Your task to perform on an android device: toggle priority inbox in the gmail app Image 0: 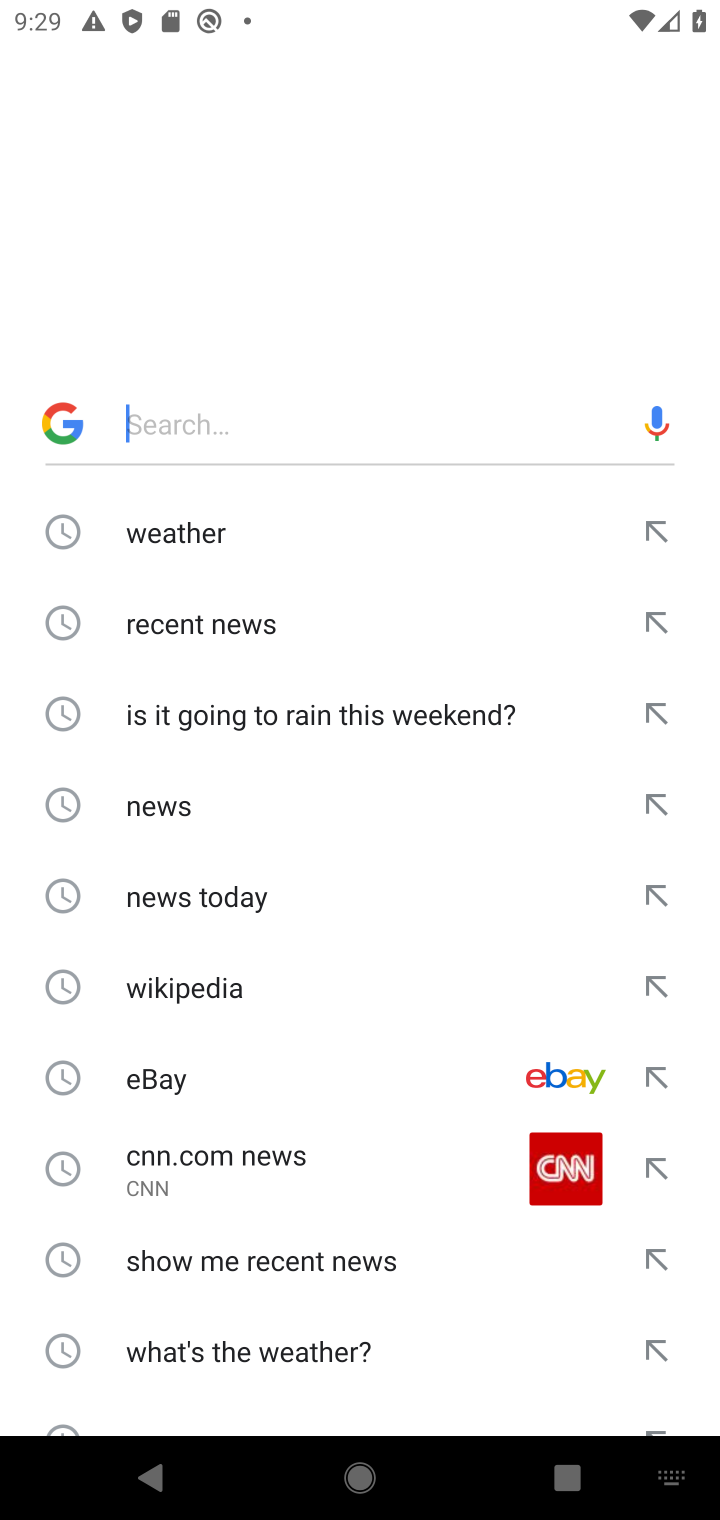
Step 0: press home button
Your task to perform on an android device: toggle priority inbox in the gmail app Image 1: 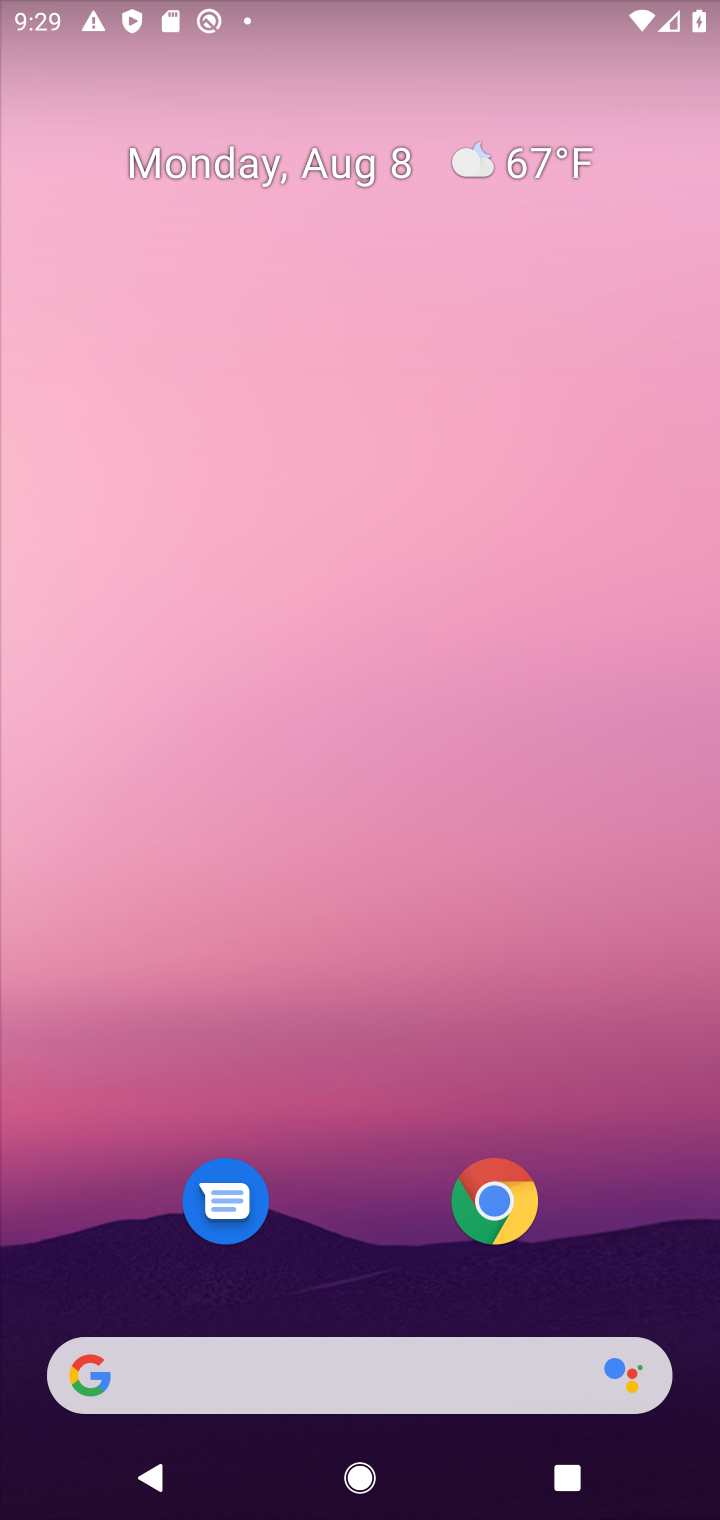
Step 1: drag from (350, 1261) to (403, 396)
Your task to perform on an android device: toggle priority inbox in the gmail app Image 2: 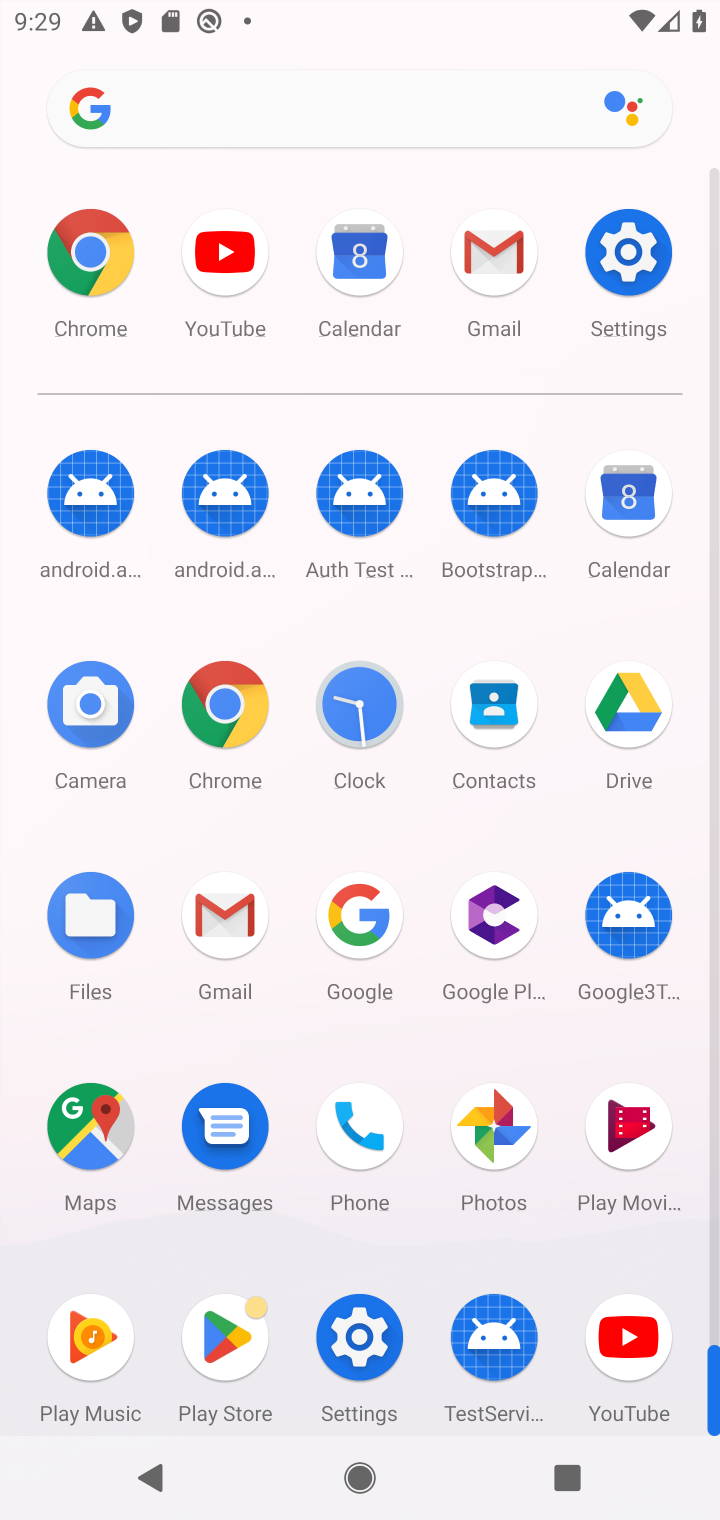
Step 2: click (223, 911)
Your task to perform on an android device: toggle priority inbox in the gmail app Image 3: 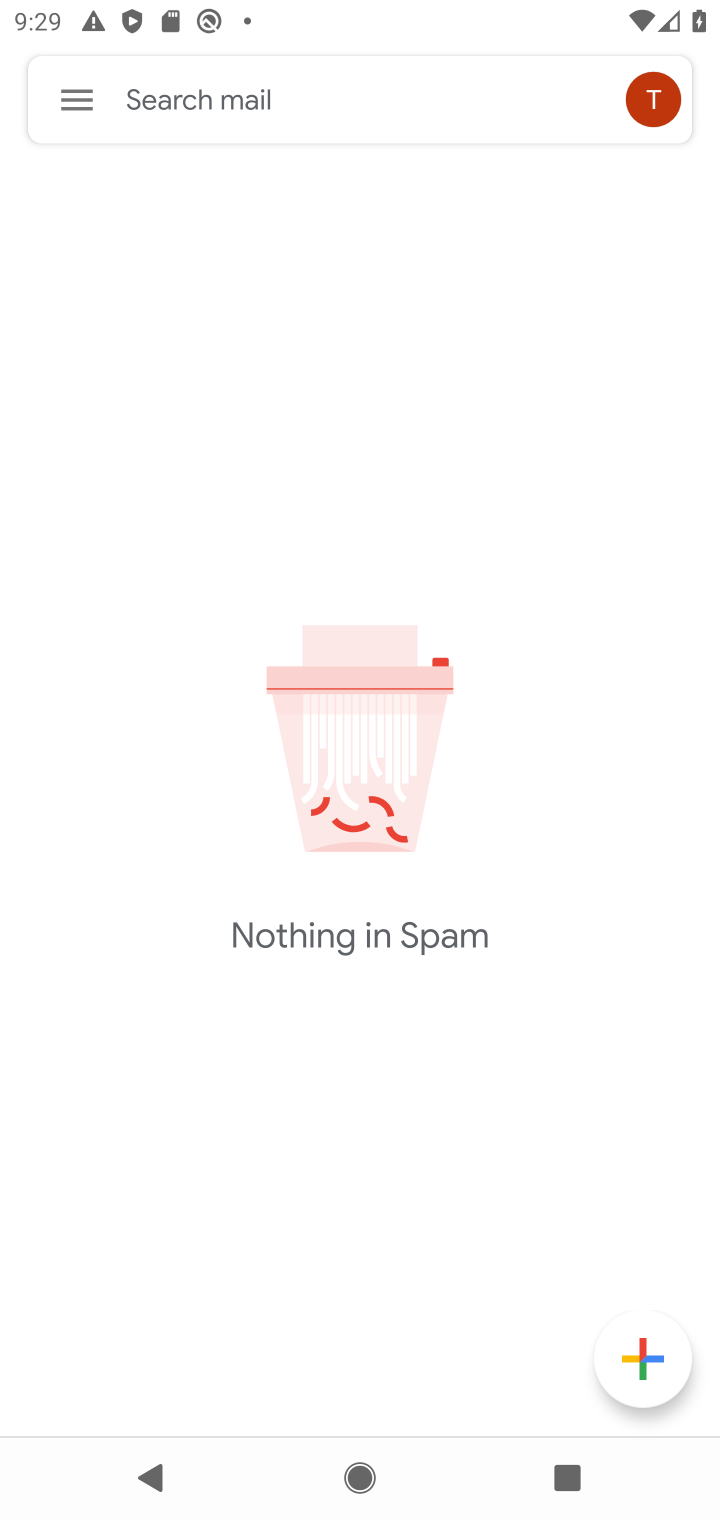
Step 3: click (80, 95)
Your task to perform on an android device: toggle priority inbox in the gmail app Image 4: 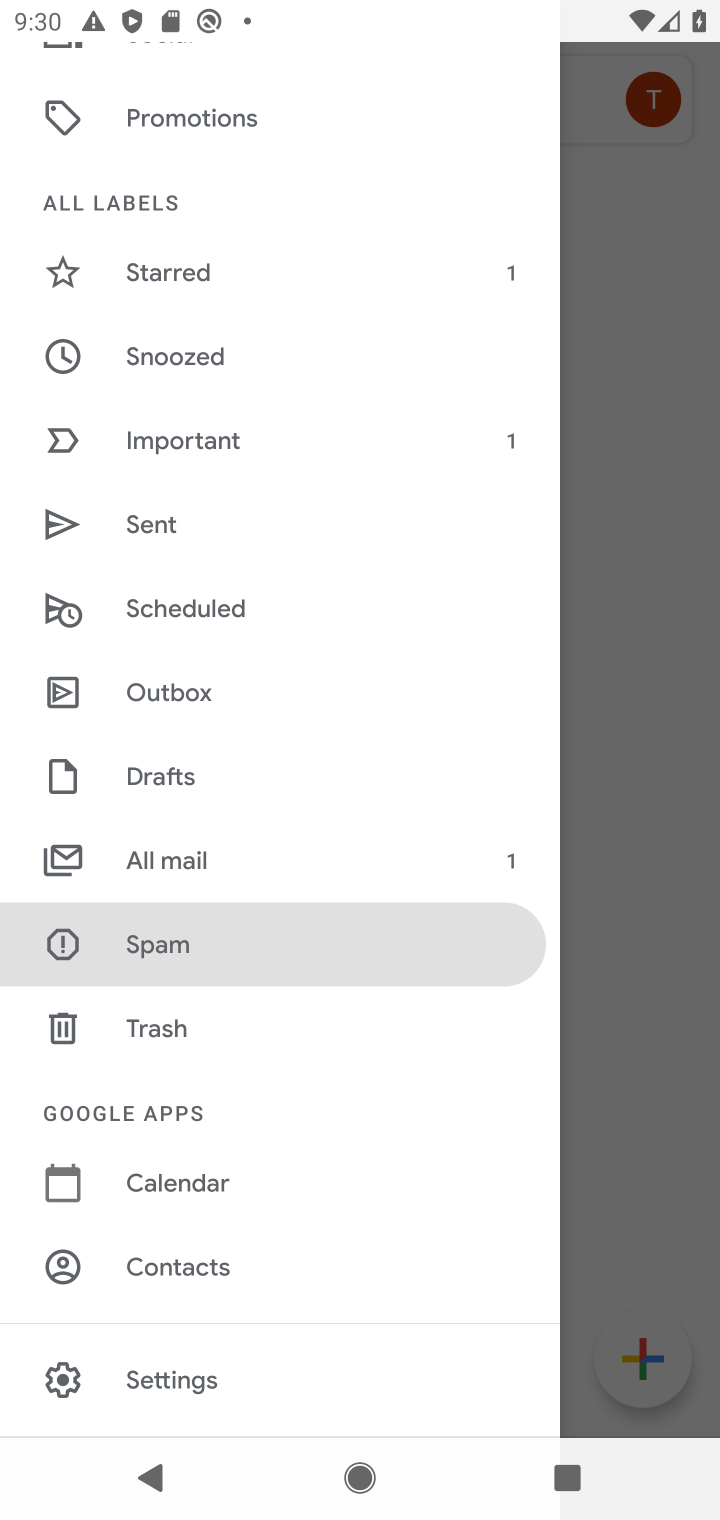
Step 4: drag from (386, 1009) to (353, 781)
Your task to perform on an android device: toggle priority inbox in the gmail app Image 5: 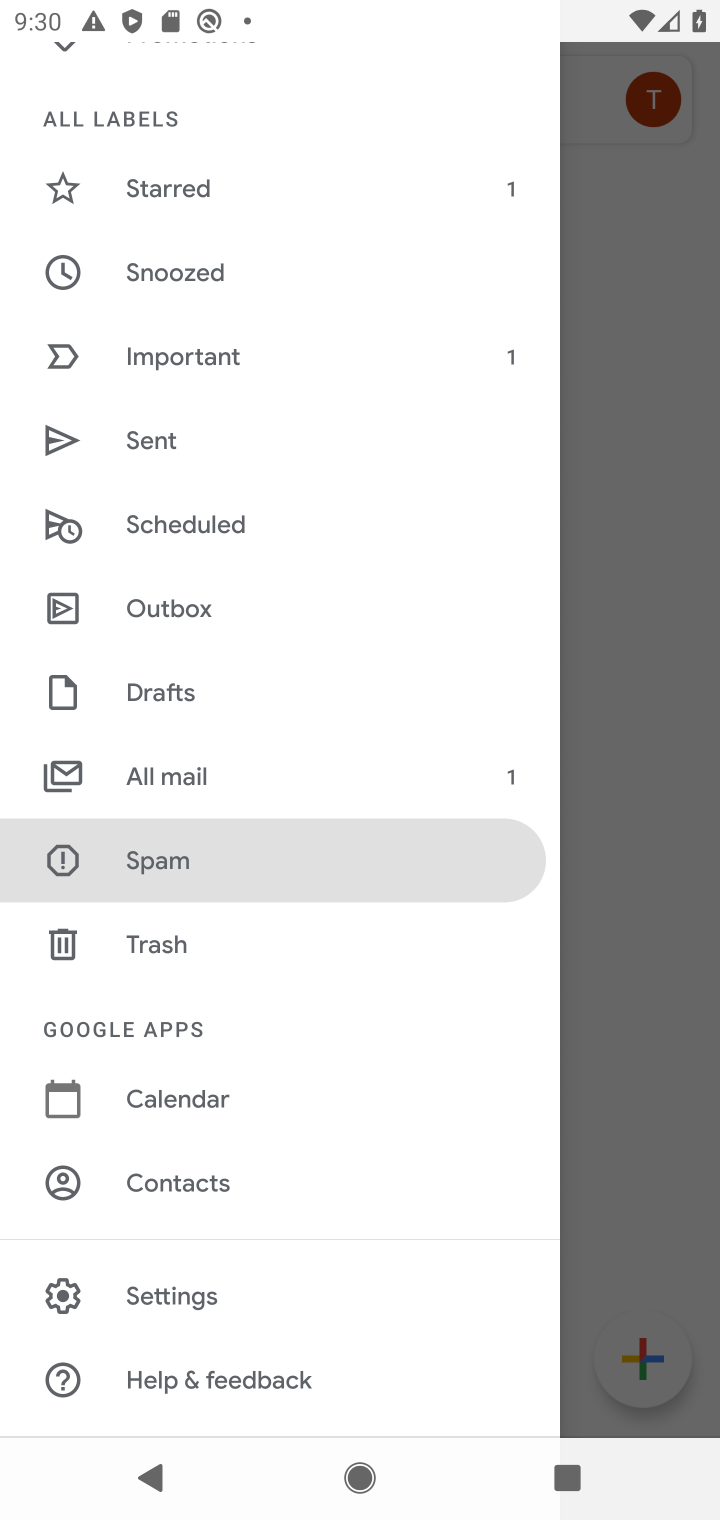
Step 5: click (233, 1300)
Your task to perform on an android device: toggle priority inbox in the gmail app Image 6: 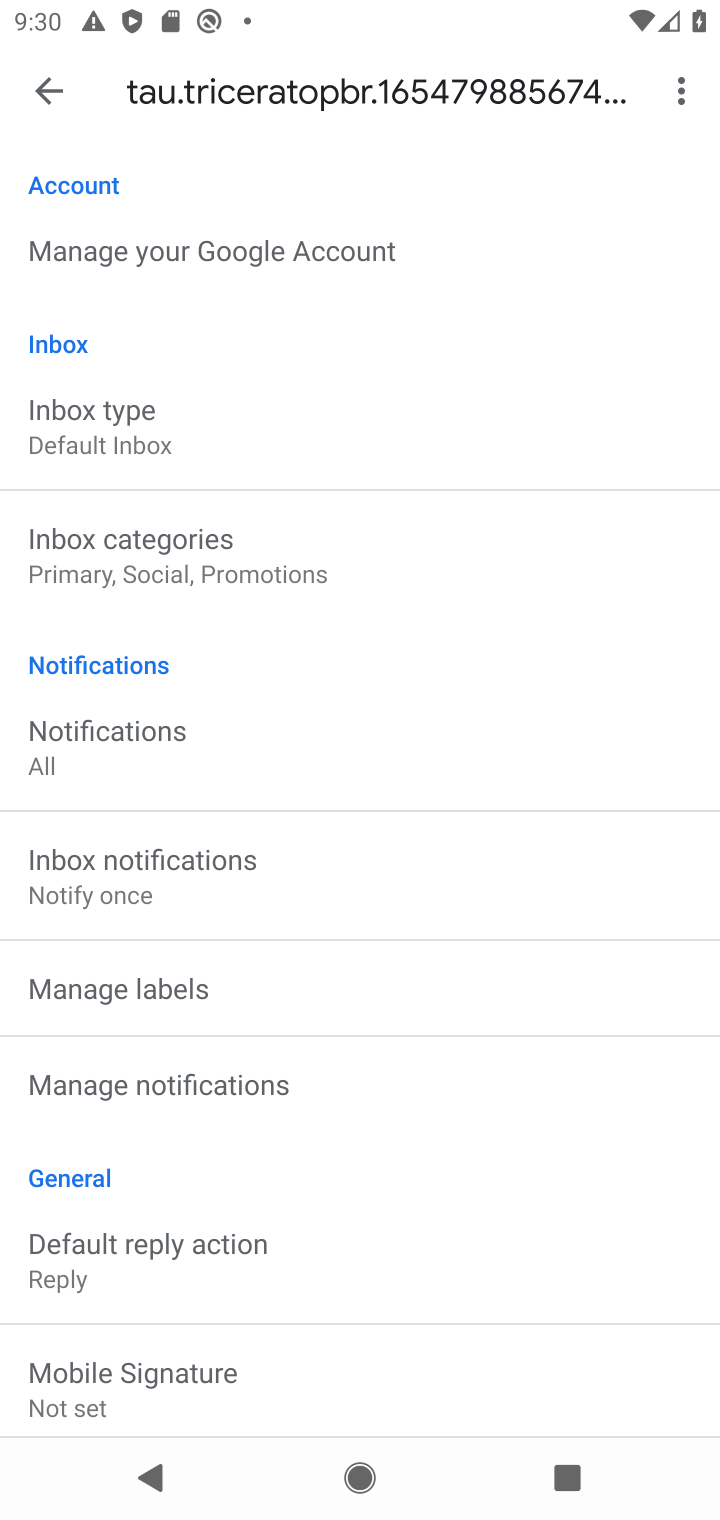
Step 6: drag from (523, 521) to (523, 978)
Your task to perform on an android device: toggle priority inbox in the gmail app Image 7: 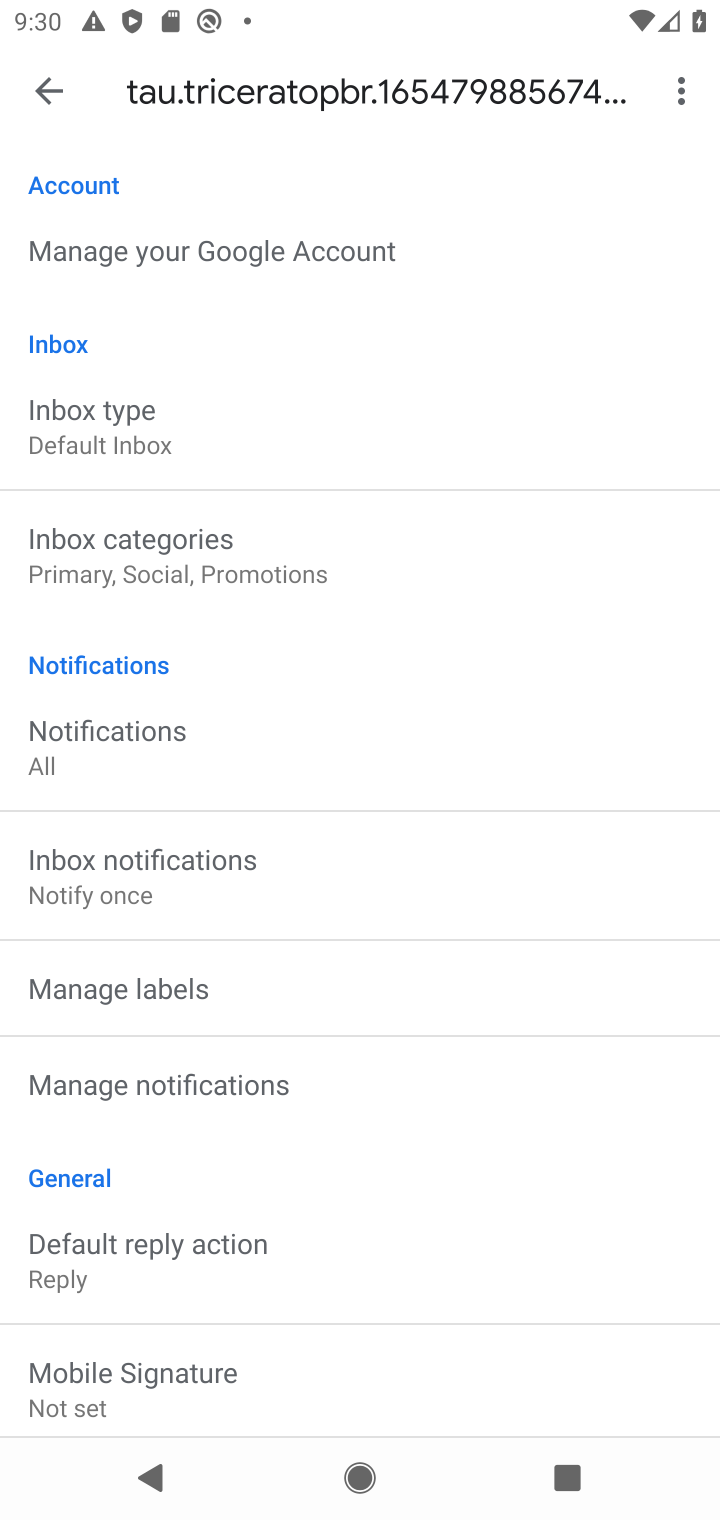
Step 7: drag from (547, 353) to (602, 880)
Your task to perform on an android device: toggle priority inbox in the gmail app Image 8: 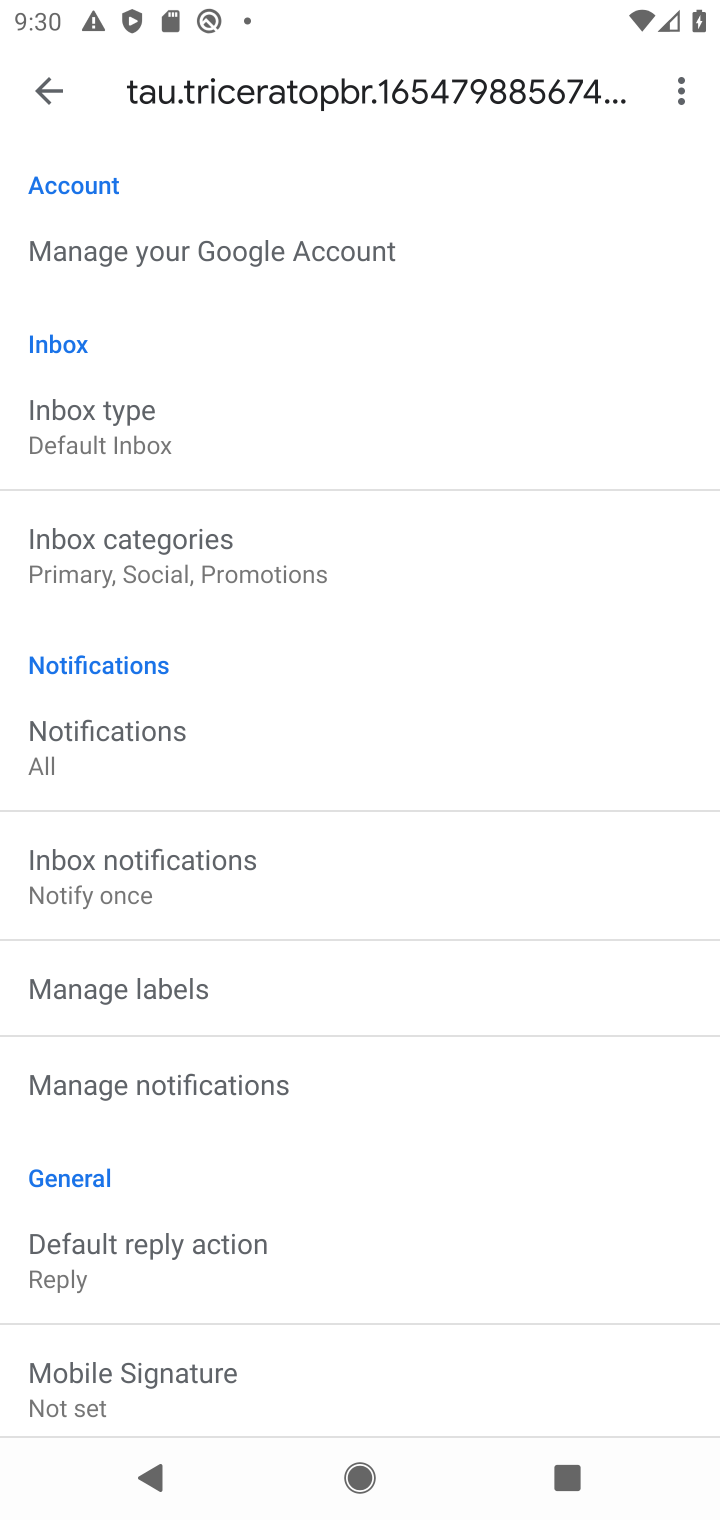
Step 8: drag from (546, 1122) to (535, 631)
Your task to perform on an android device: toggle priority inbox in the gmail app Image 9: 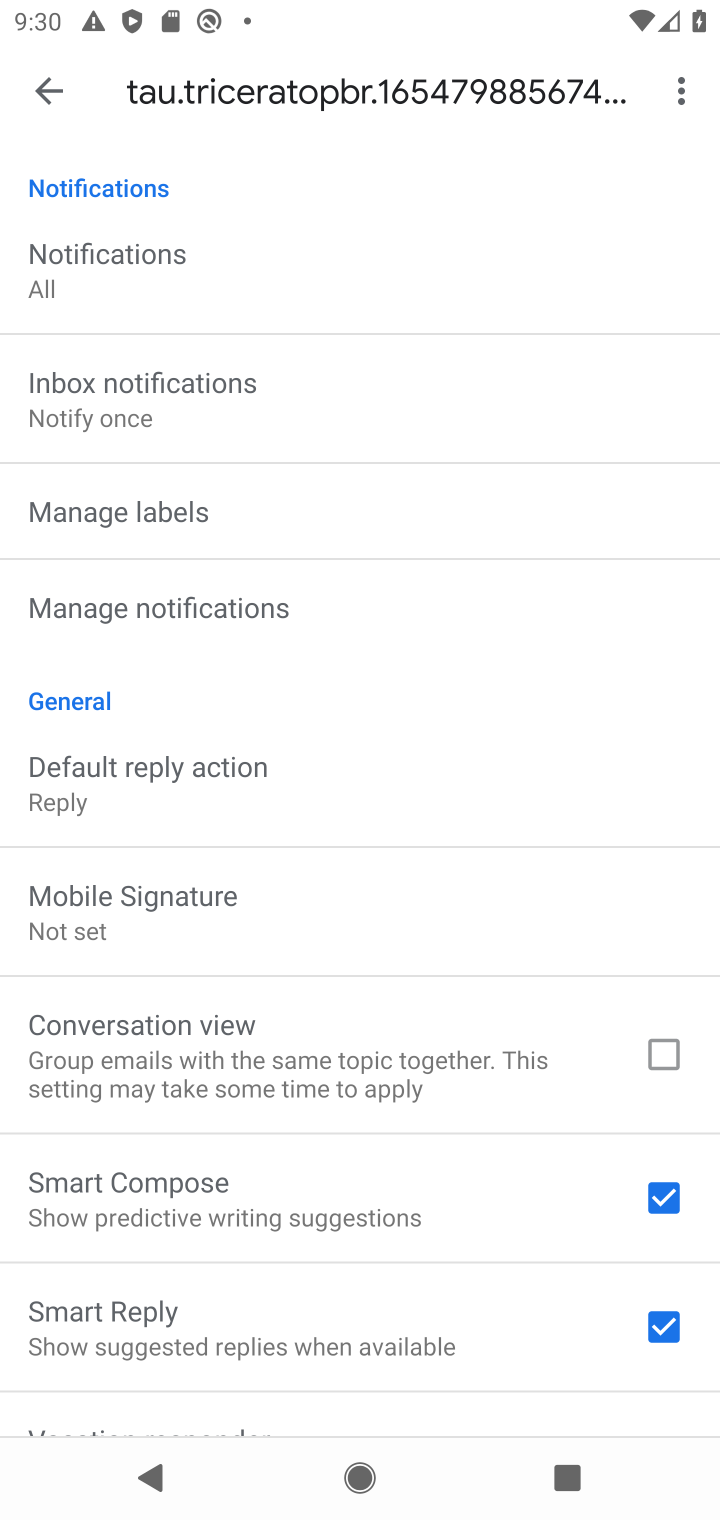
Step 9: drag from (494, 1011) to (510, 578)
Your task to perform on an android device: toggle priority inbox in the gmail app Image 10: 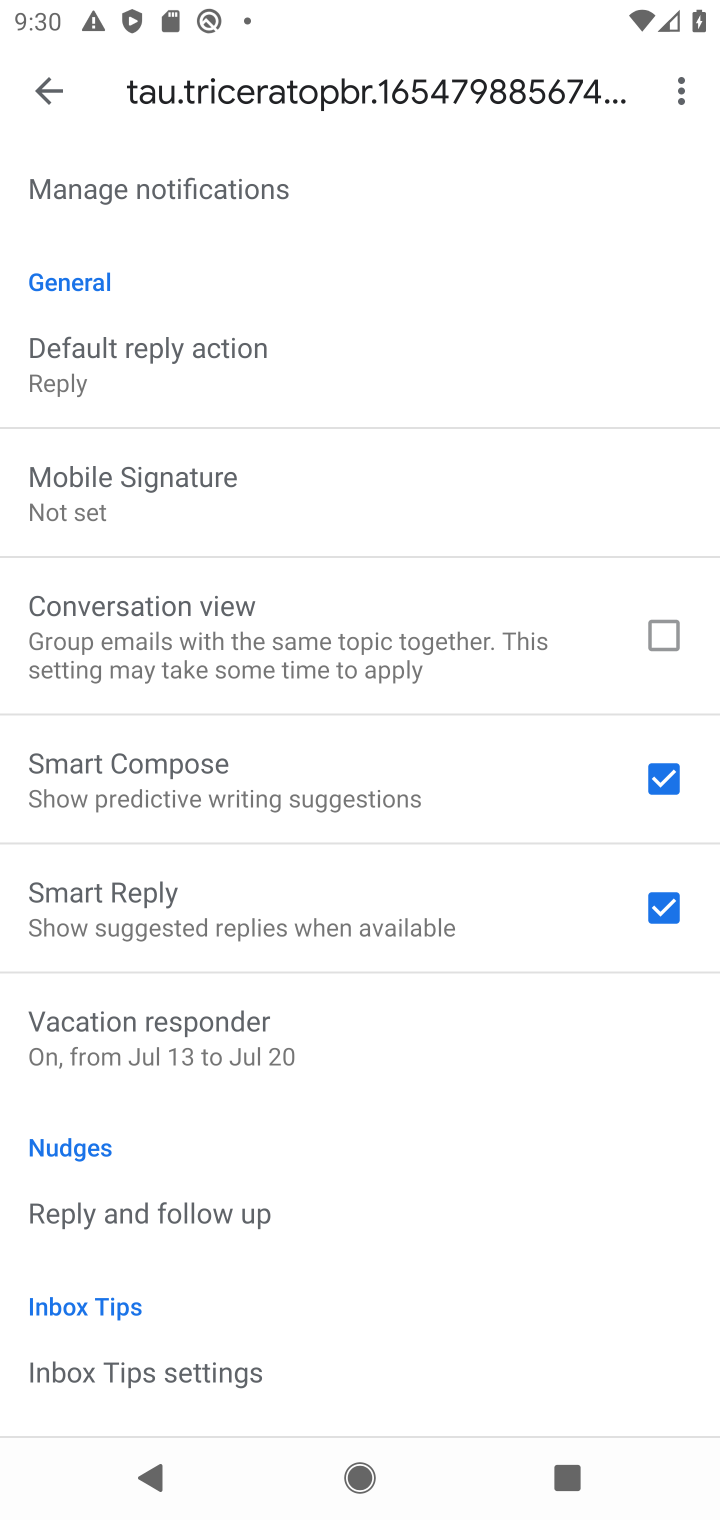
Step 10: drag from (512, 1080) to (530, 552)
Your task to perform on an android device: toggle priority inbox in the gmail app Image 11: 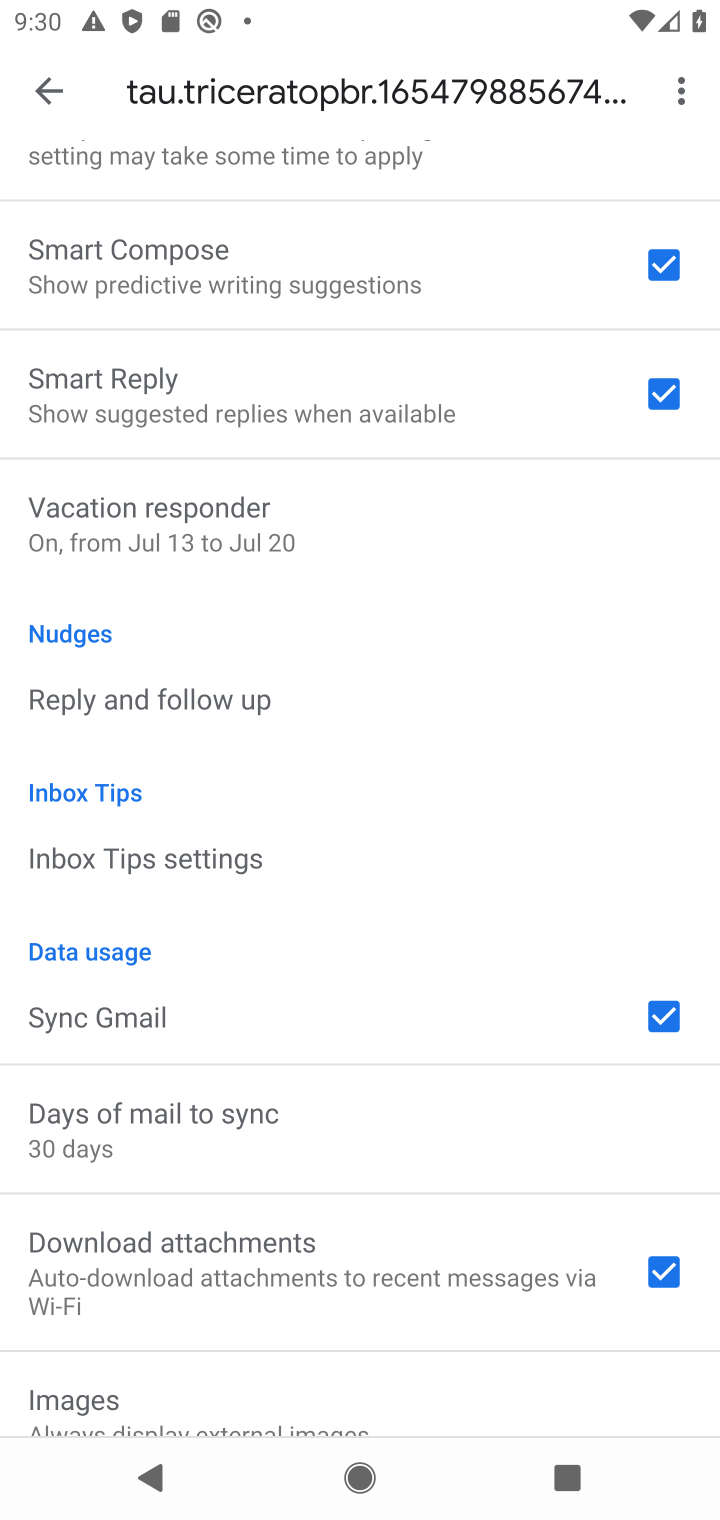
Step 11: drag from (530, 396) to (553, 854)
Your task to perform on an android device: toggle priority inbox in the gmail app Image 12: 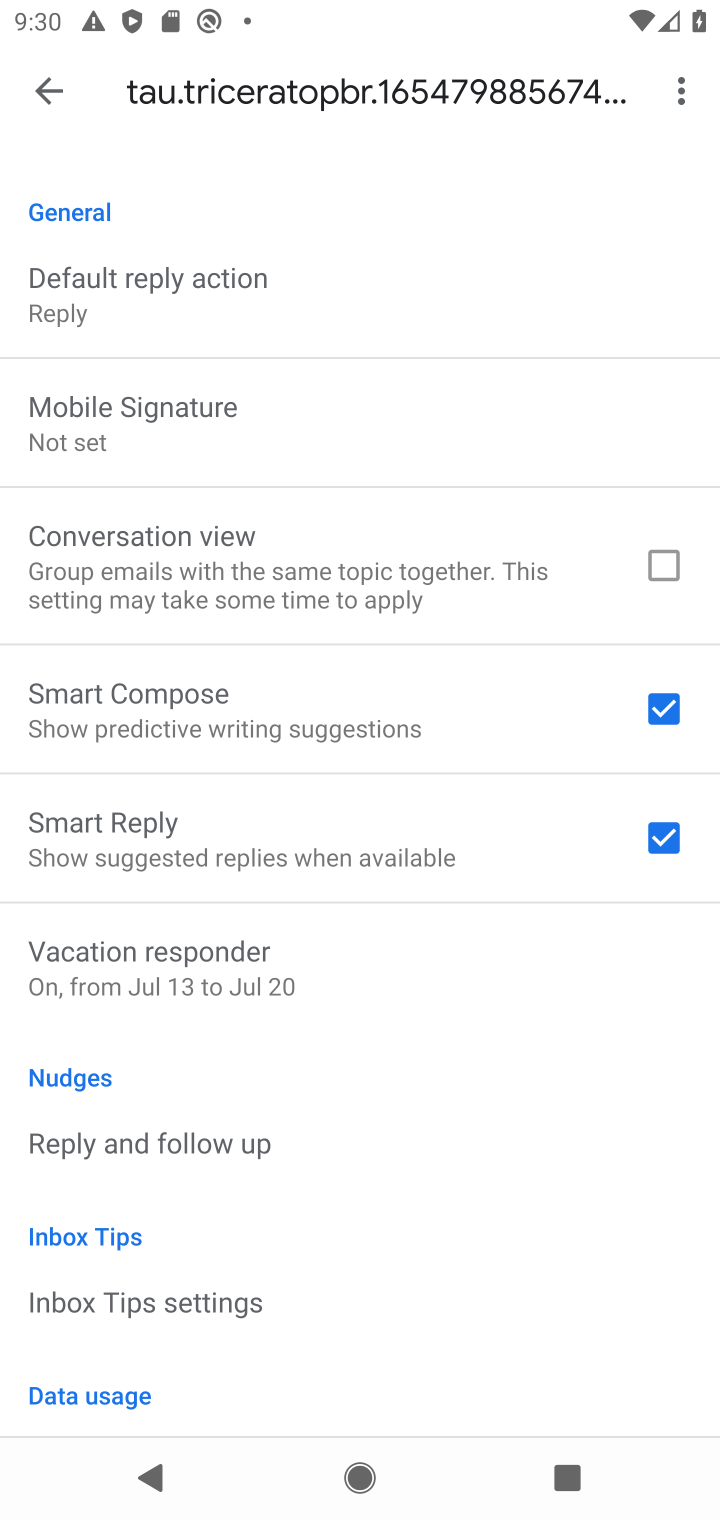
Step 12: drag from (575, 383) to (575, 743)
Your task to perform on an android device: toggle priority inbox in the gmail app Image 13: 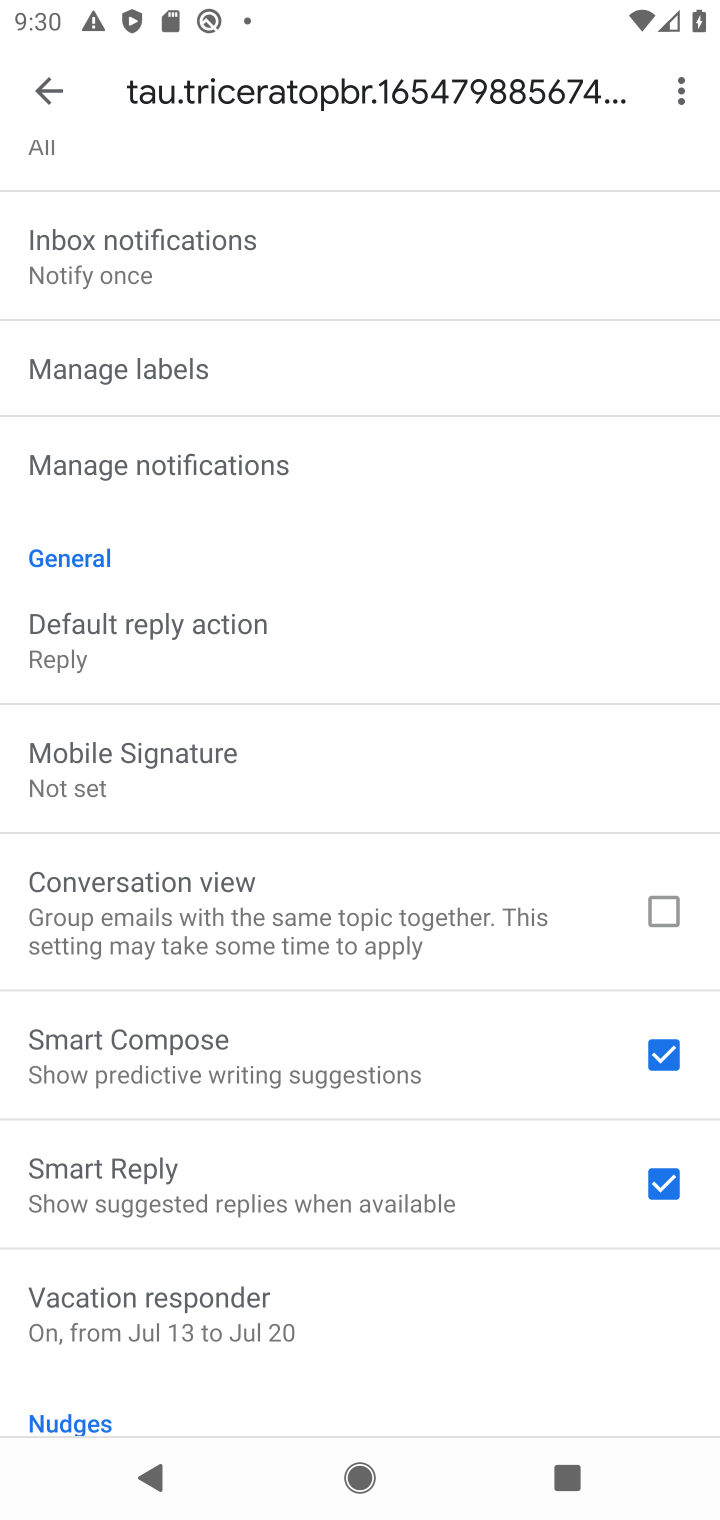
Step 13: drag from (522, 341) to (515, 645)
Your task to perform on an android device: toggle priority inbox in the gmail app Image 14: 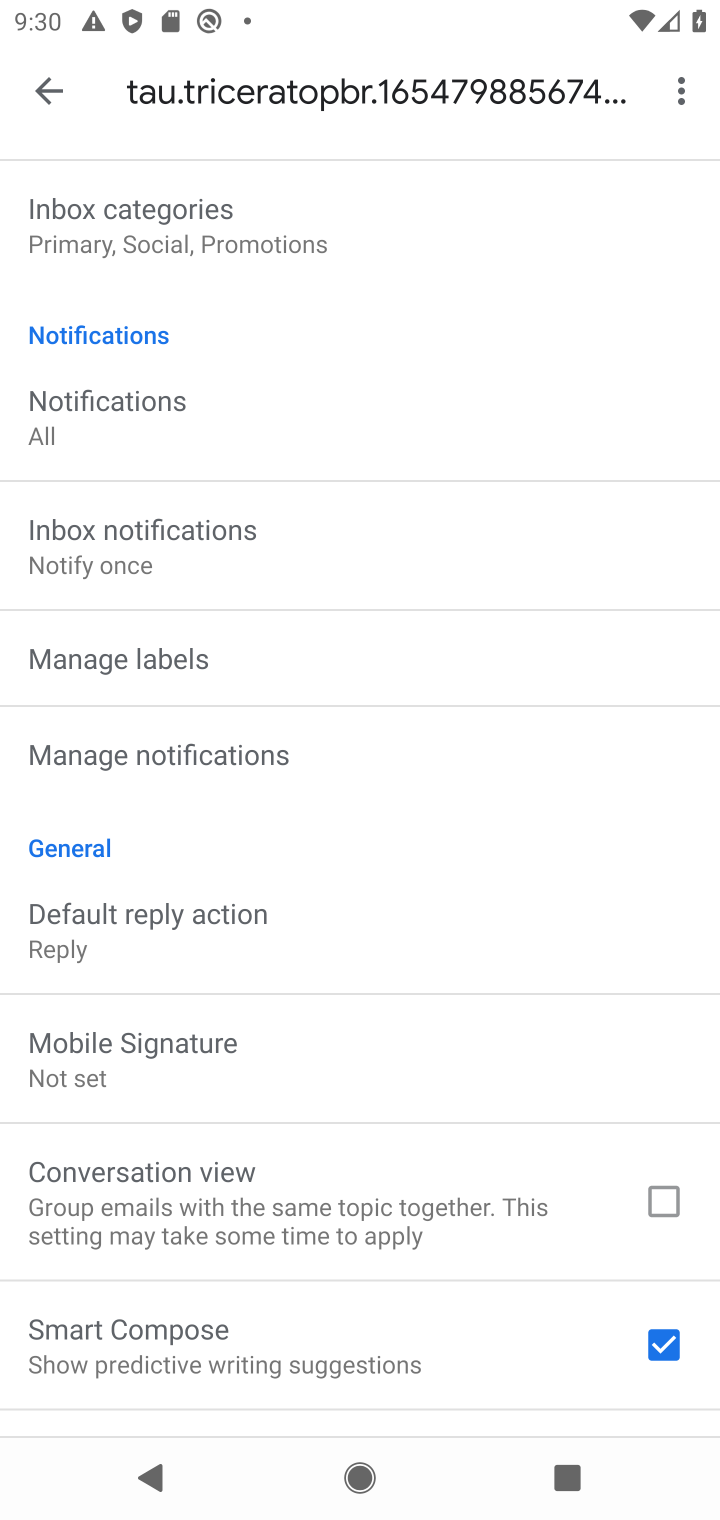
Step 14: drag from (482, 295) to (471, 716)
Your task to perform on an android device: toggle priority inbox in the gmail app Image 15: 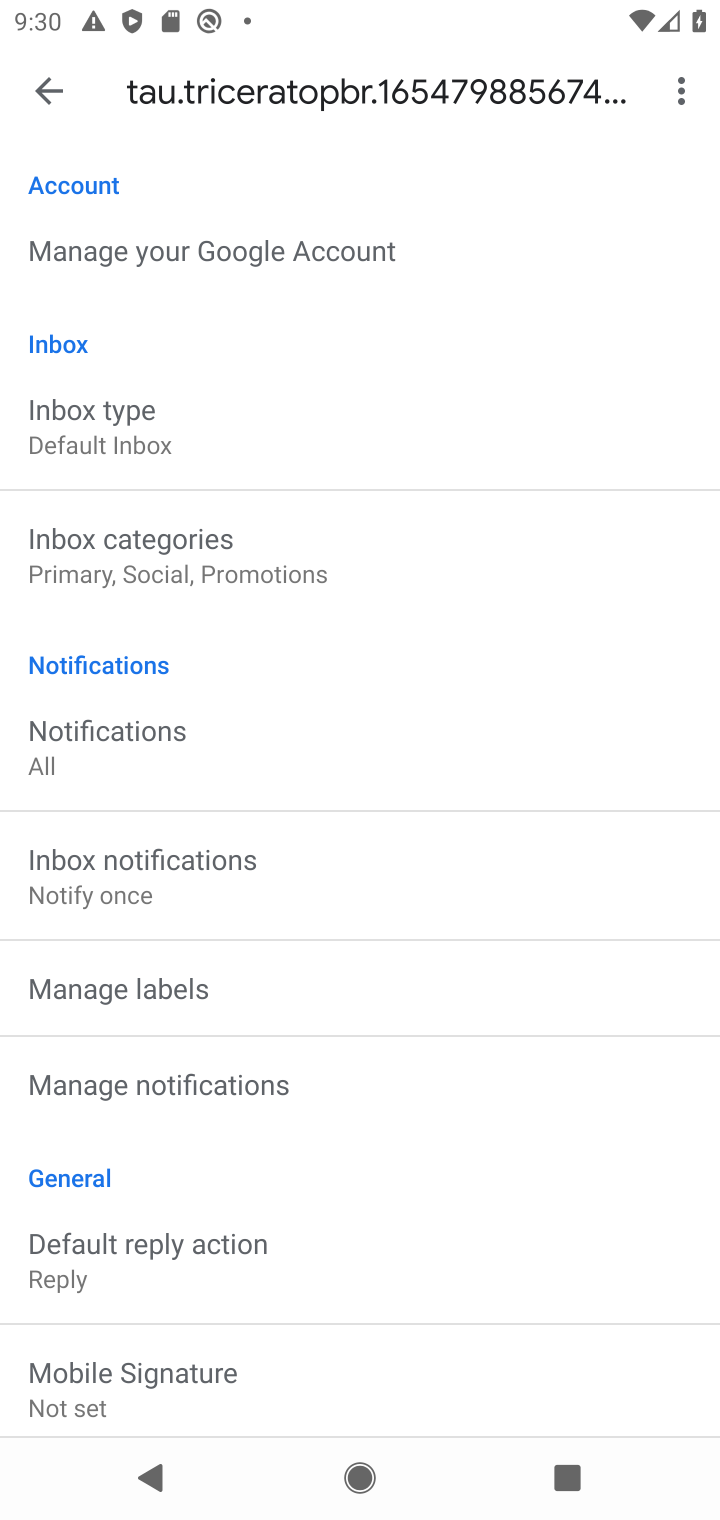
Step 15: drag from (427, 456) to (429, 612)
Your task to perform on an android device: toggle priority inbox in the gmail app Image 16: 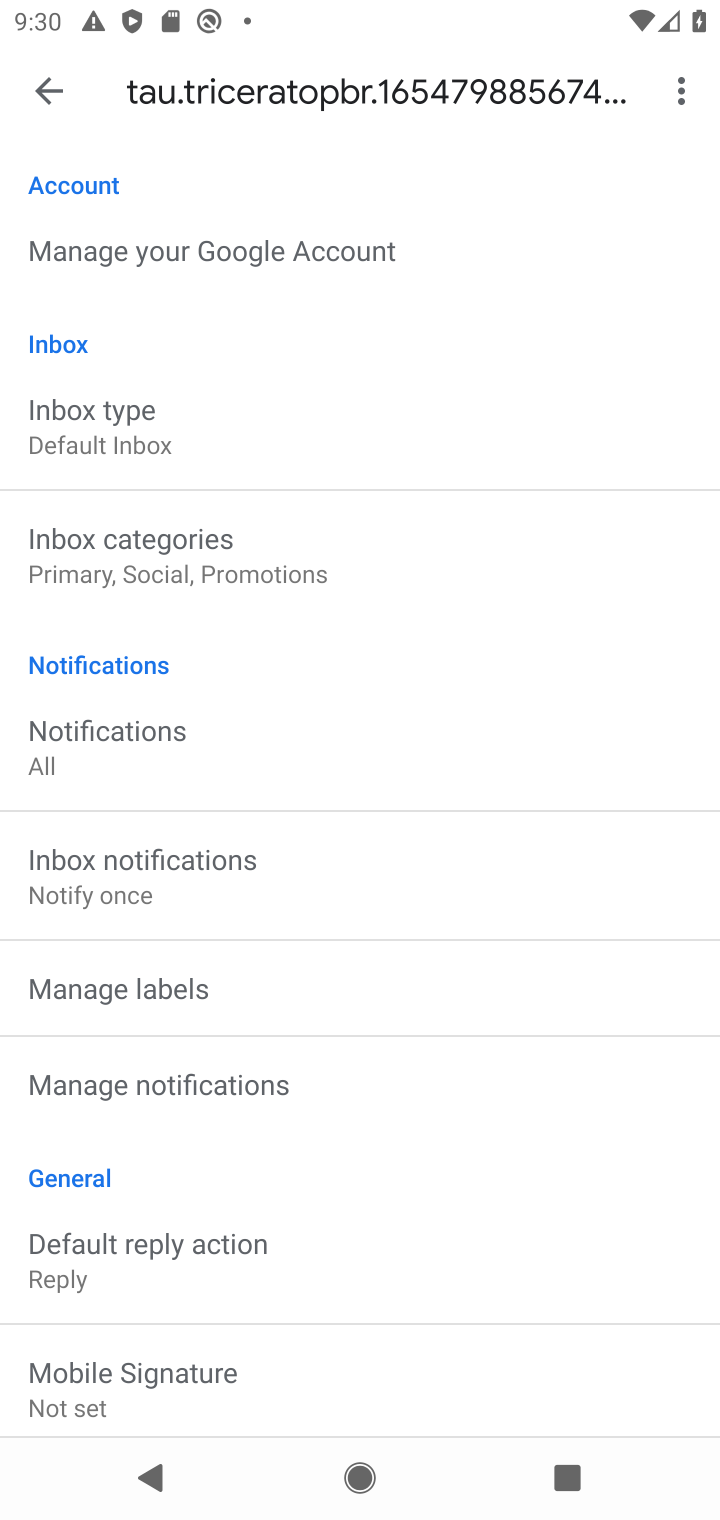
Step 16: click (155, 429)
Your task to perform on an android device: toggle priority inbox in the gmail app Image 17: 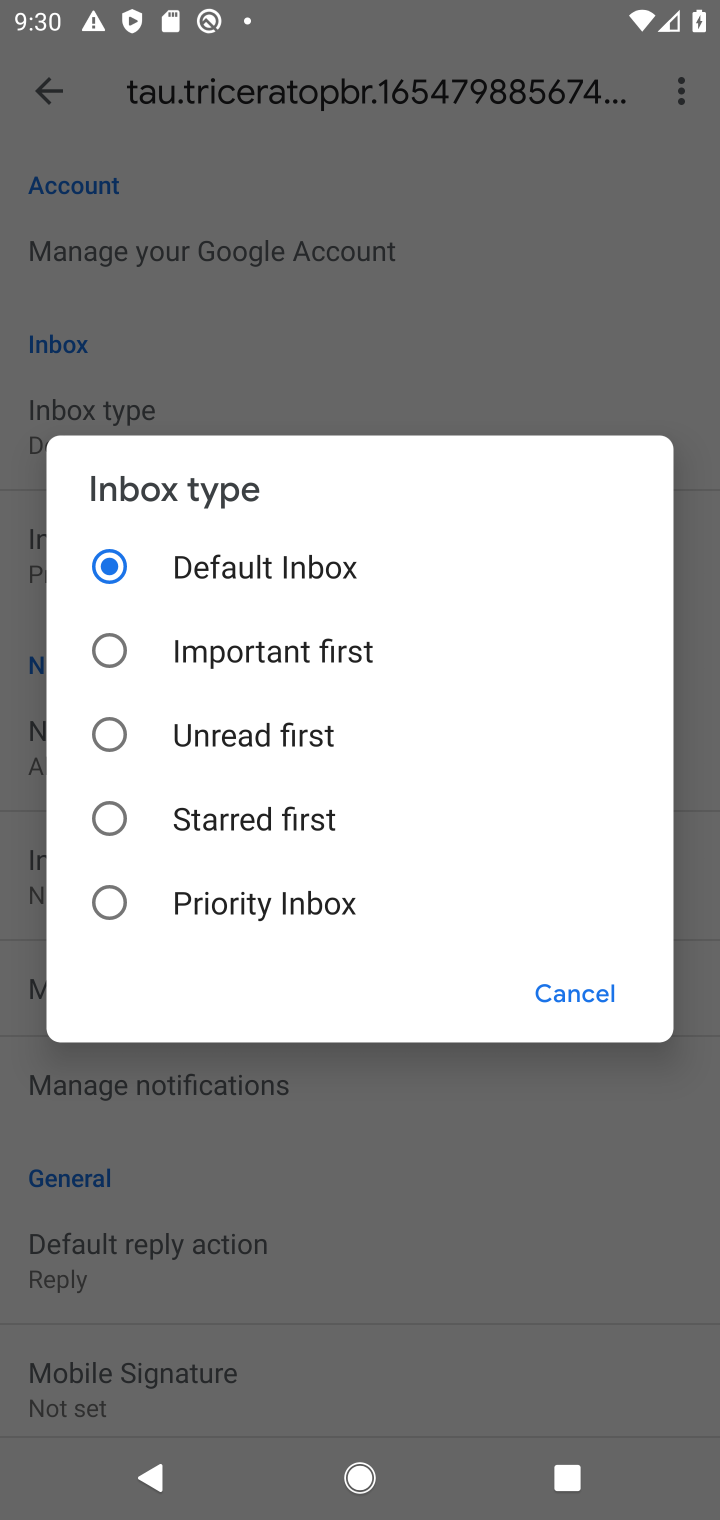
Step 17: click (288, 927)
Your task to perform on an android device: toggle priority inbox in the gmail app Image 18: 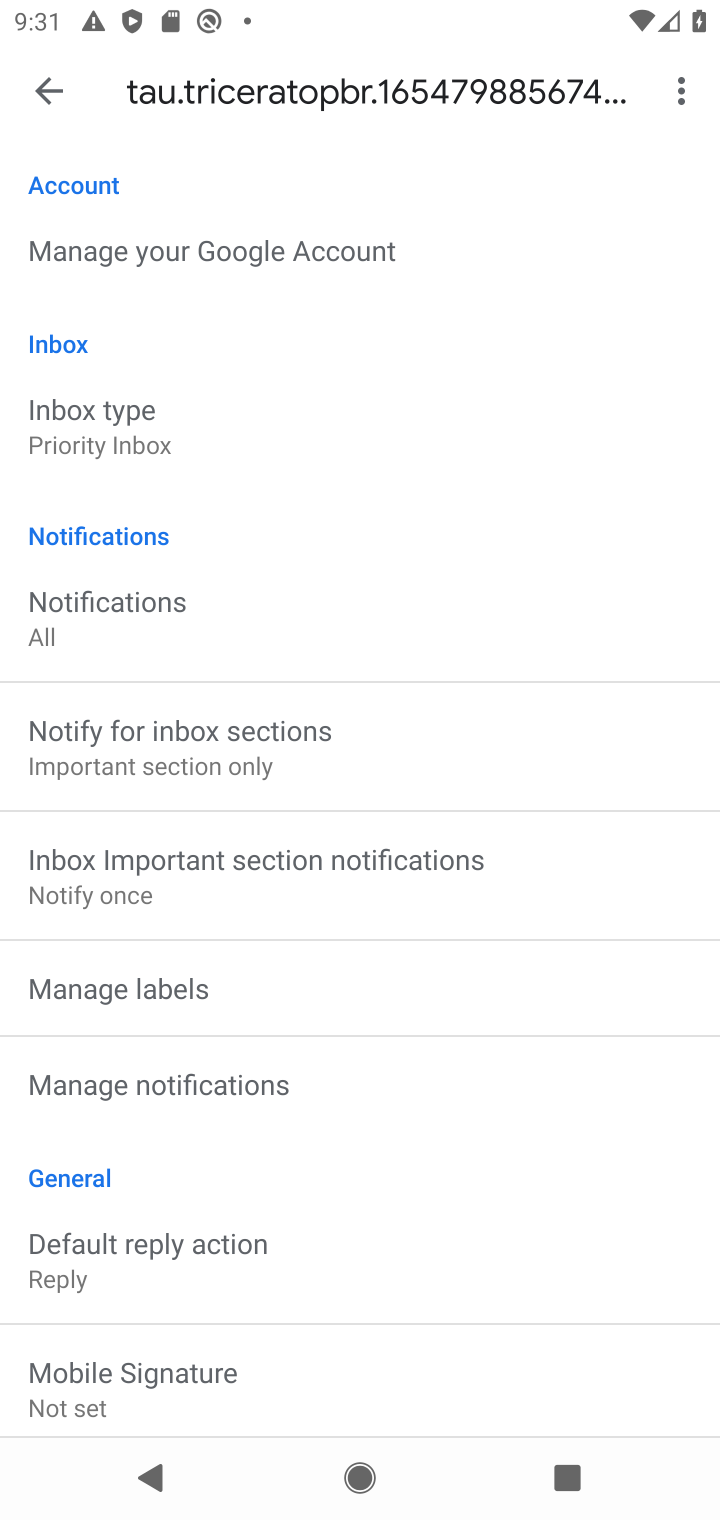
Step 18: task complete